Your task to perform on an android device: toggle improve location accuracy Image 0: 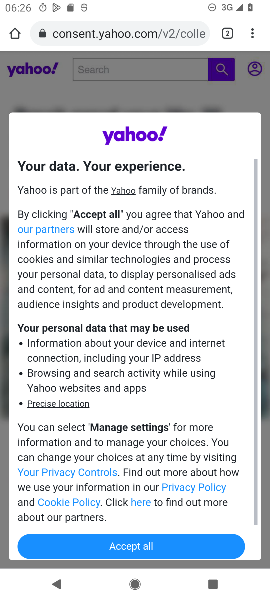
Step 0: press home button
Your task to perform on an android device: toggle improve location accuracy Image 1: 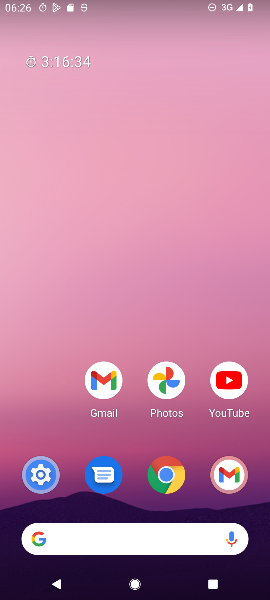
Step 1: drag from (58, 434) to (77, 202)
Your task to perform on an android device: toggle improve location accuracy Image 2: 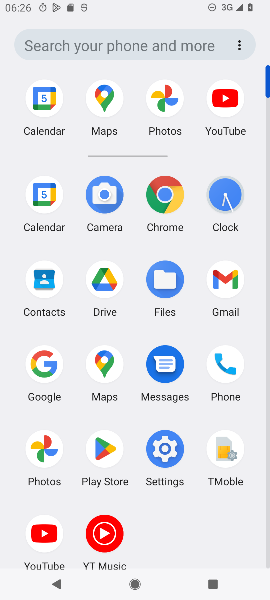
Step 2: click (161, 450)
Your task to perform on an android device: toggle improve location accuracy Image 3: 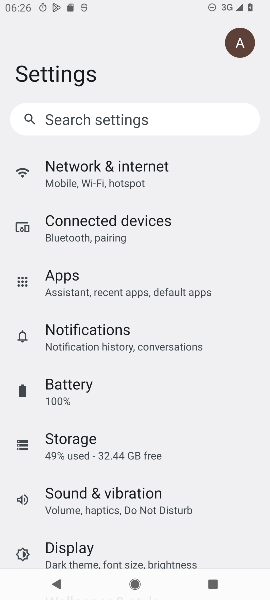
Step 3: drag from (228, 423) to (225, 335)
Your task to perform on an android device: toggle improve location accuracy Image 4: 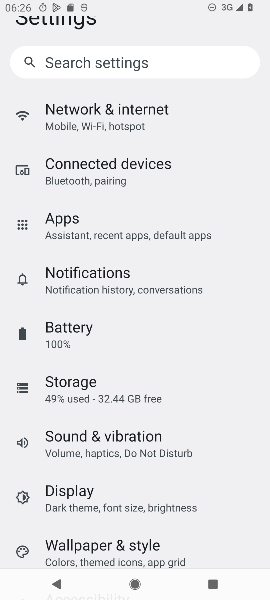
Step 4: drag from (224, 469) to (218, 329)
Your task to perform on an android device: toggle improve location accuracy Image 5: 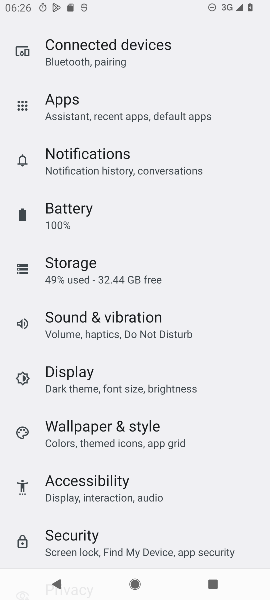
Step 5: drag from (238, 443) to (244, 309)
Your task to perform on an android device: toggle improve location accuracy Image 6: 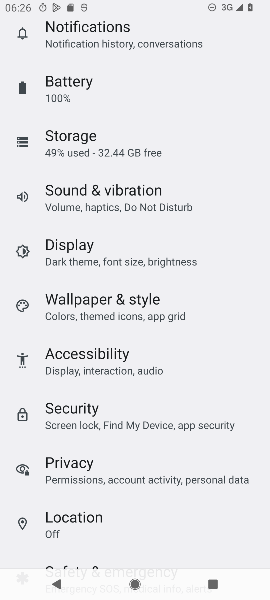
Step 6: drag from (231, 345) to (229, 264)
Your task to perform on an android device: toggle improve location accuracy Image 7: 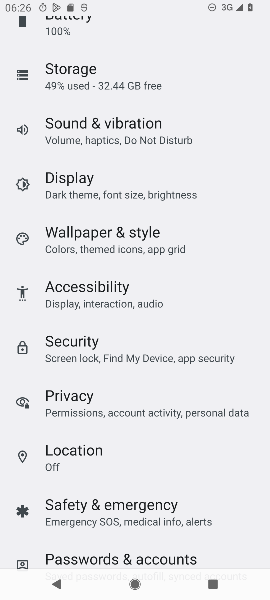
Step 7: drag from (201, 384) to (206, 330)
Your task to perform on an android device: toggle improve location accuracy Image 8: 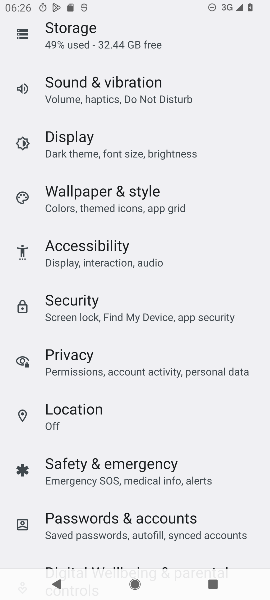
Step 8: click (171, 416)
Your task to perform on an android device: toggle improve location accuracy Image 9: 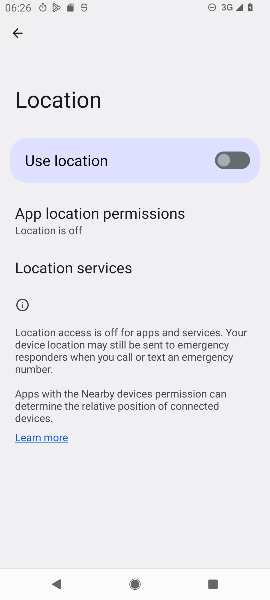
Step 9: click (125, 280)
Your task to perform on an android device: toggle improve location accuracy Image 10: 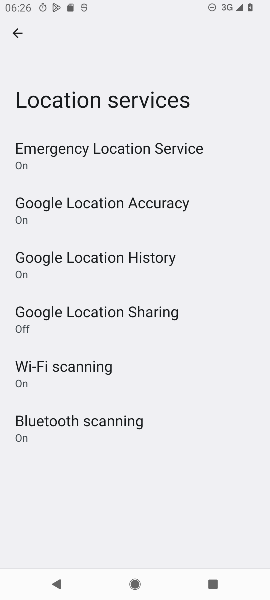
Step 10: click (128, 209)
Your task to perform on an android device: toggle improve location accuracy Image 11: 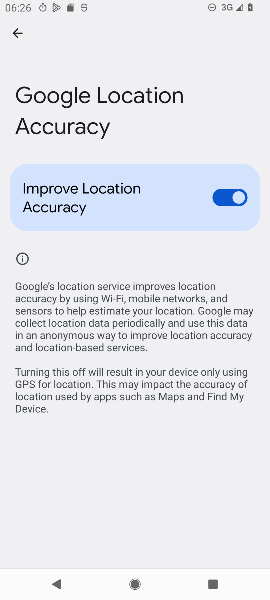
Step 11: click (232, 195)
Your task to perform on an android device: toggle improve location accuracy Image 12: 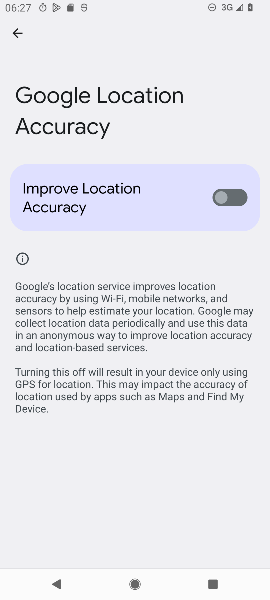
Step 12: task complete